Your task to perform on an android device: see creations saved in the google photos Image 0: 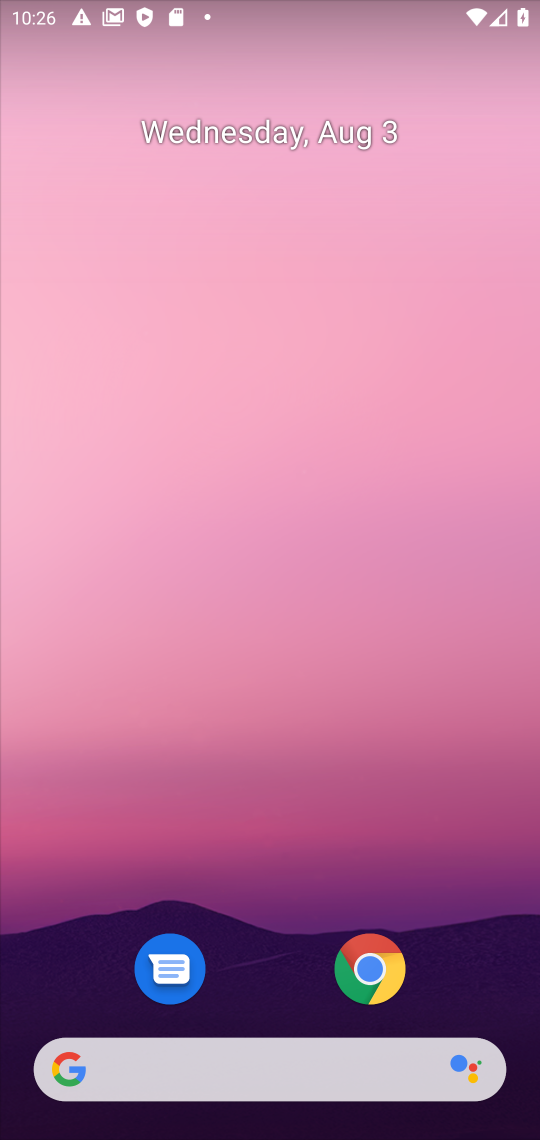
Step 0: drag from (269, 1006) to (474, 55)
Your task to perform on an android device: see creations saved in the google photos Image 1: 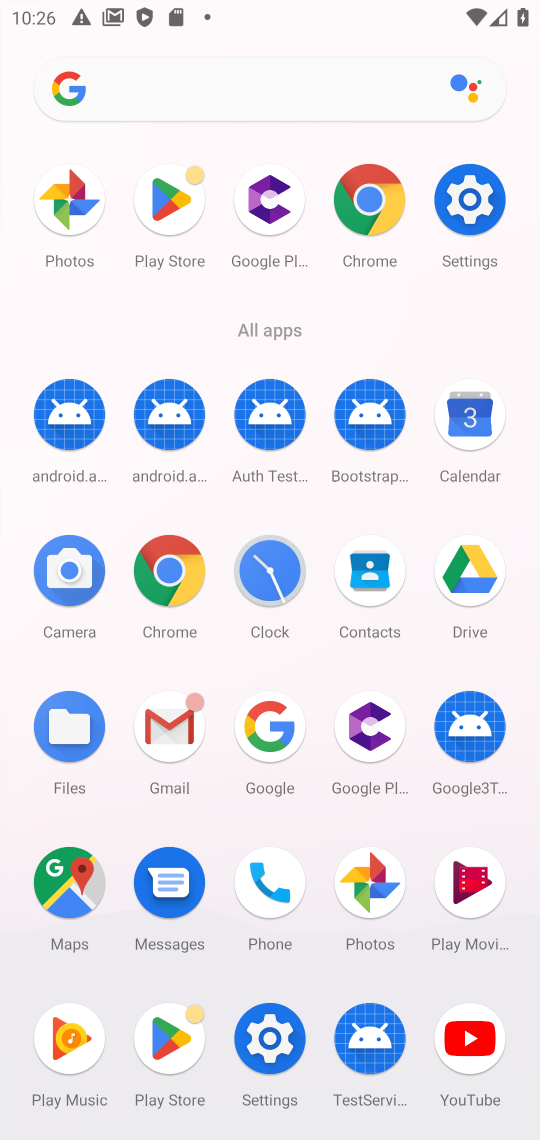
Step 1: click (388, 926)
Your task to perform on an android device: see creations saved in the google photos Image 2: 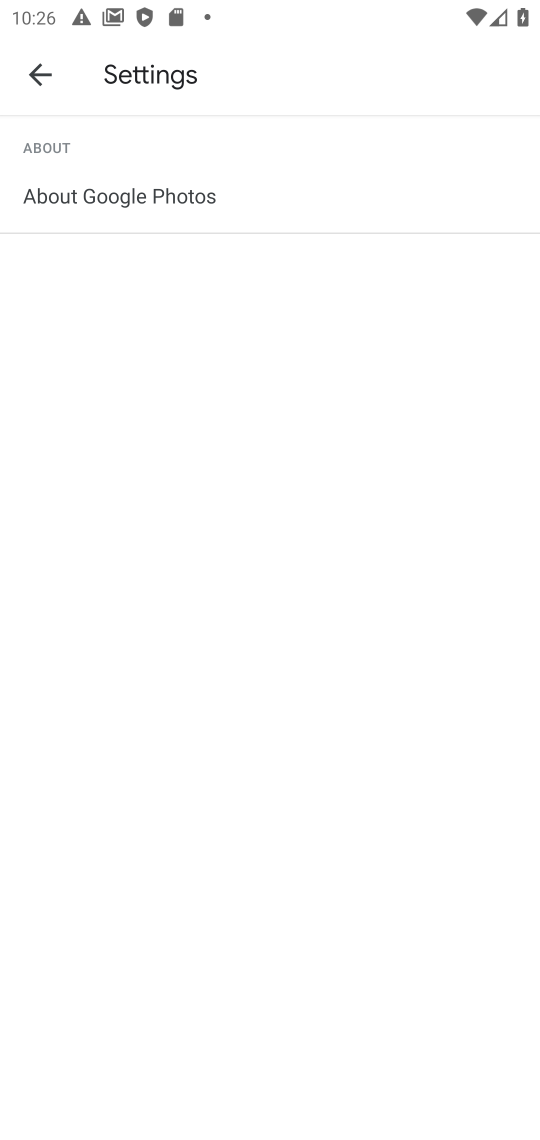
Step 2: click (19, 66)
Your task to perform on an android device: see creations saved in the google photos Image 3: 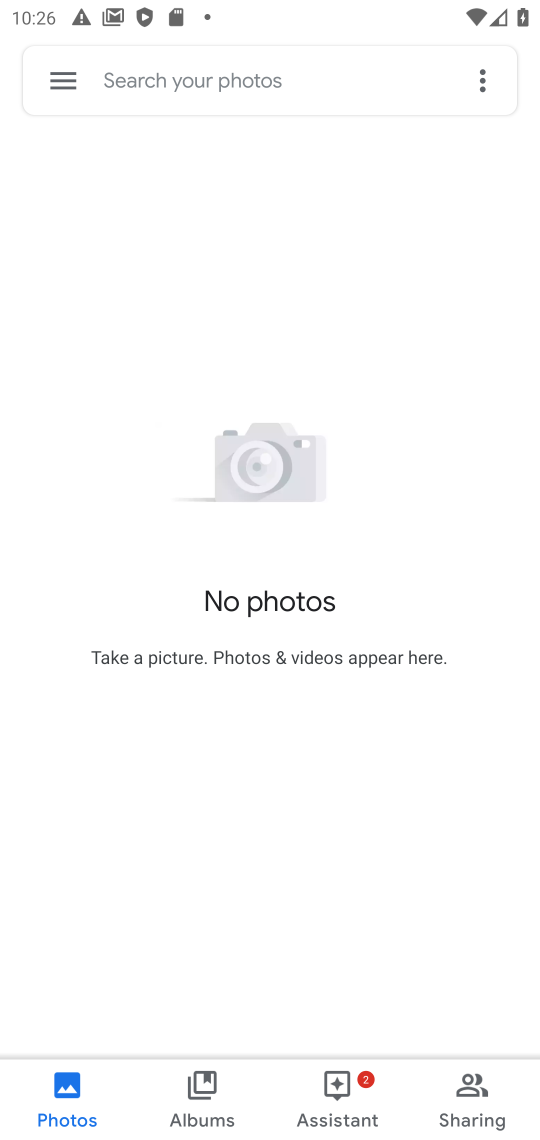
Step 3: click (133, 93)
Your task to perform on an android device: see creations saved in the google photos Image 4: 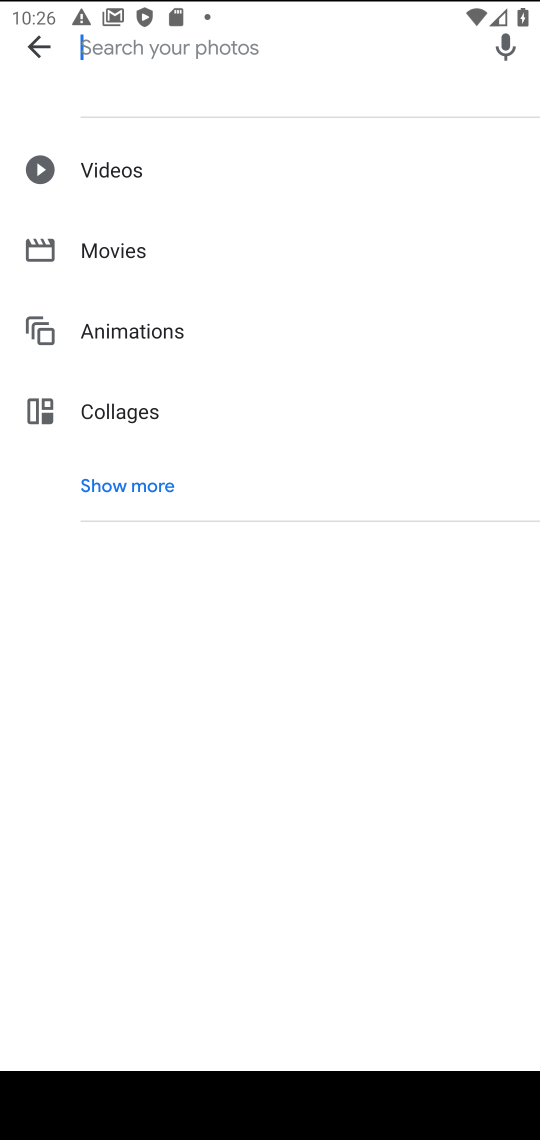
Step 4: click (104, 481)
Your task to perform on an android device: see creations saved in the google photos Image 5: 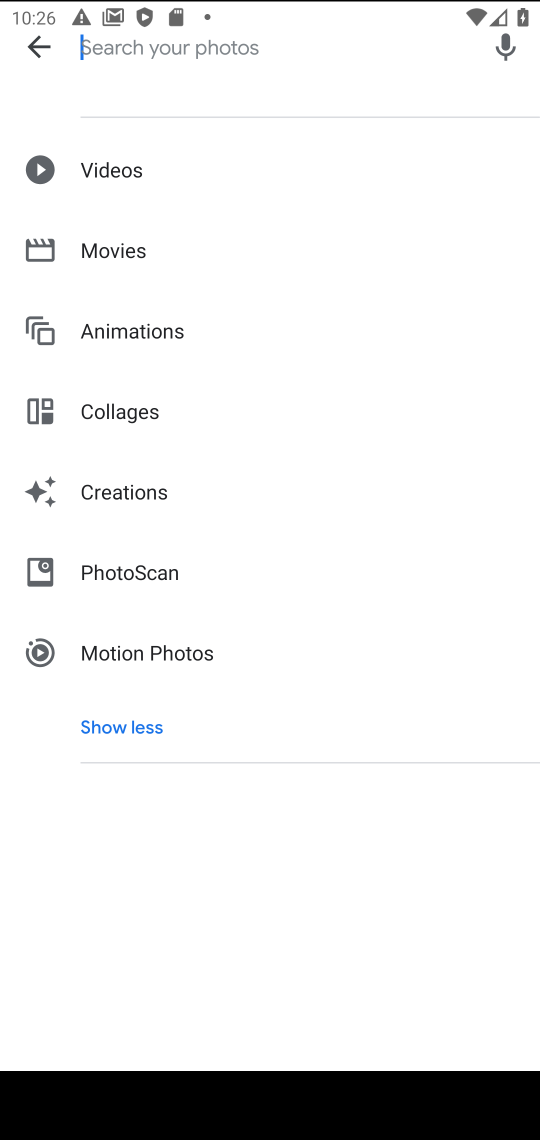
Step 5: click (120, 493)
Your task to perform on an android device: see creations saved in the google photos Image 6: 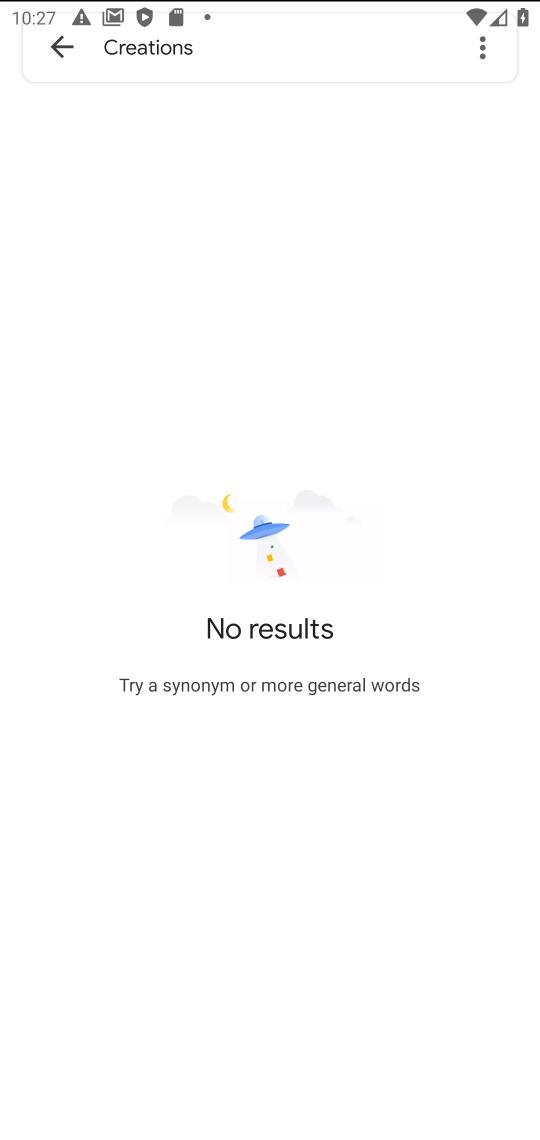
Step 6: task complete